Your task to perform on an android device: open wifi settings Image 0: 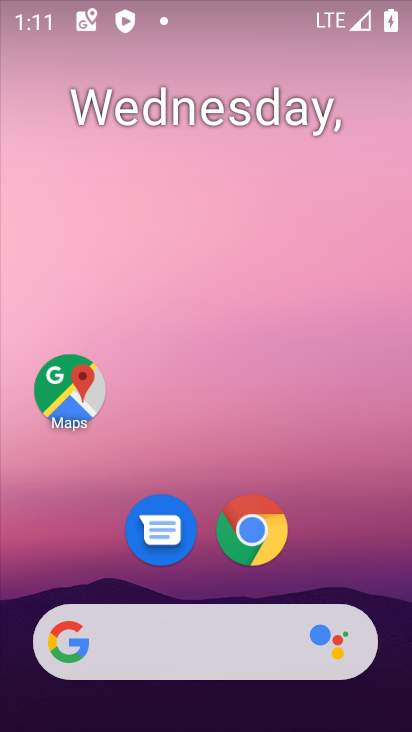
Step 0: drag from (360, 543) to (371, 162)
Your task to perform on an android device: open wifi settings Image 1: 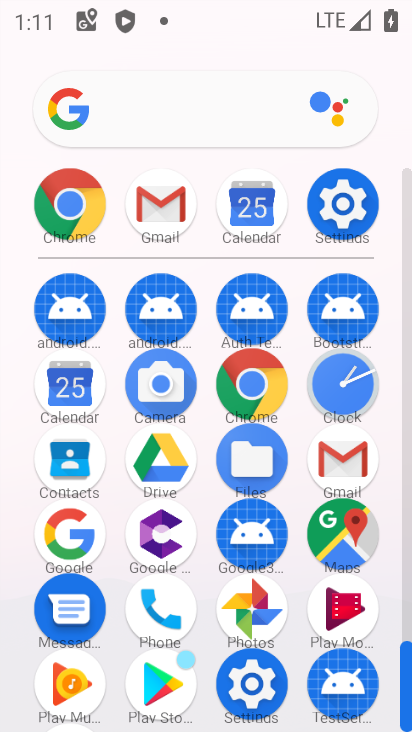
Step 1: click (250, 687)
Your task to perform on an android device: open wifi settings Image 2: 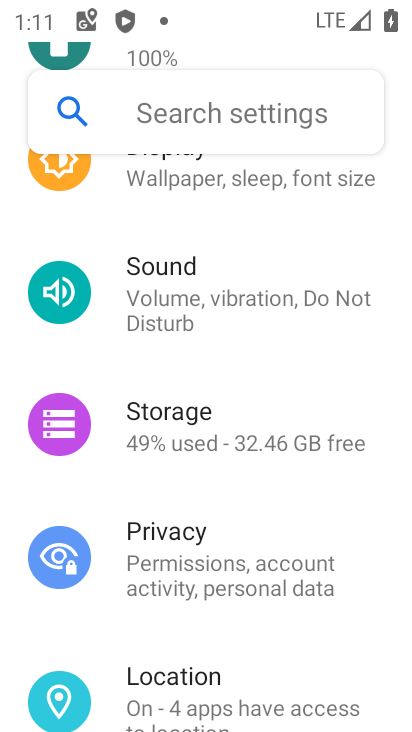
Step 2: drag from (223, 205) to (223, 603)
Your task to perform on an android device: open wifi settings Image 3: 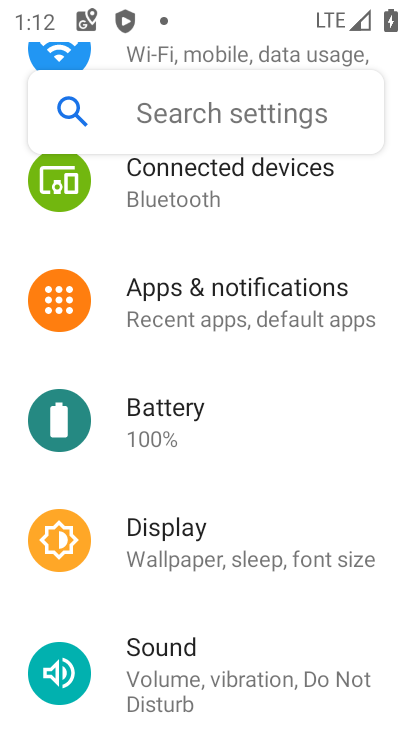
Step 3: drag from (249, 236) to (260, 515)
Your task to perform on an android device: open wifi settings Image 4: 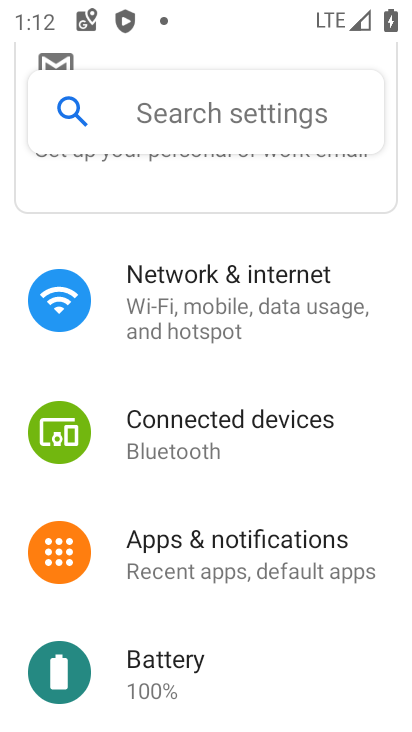
Step 4: click (199, 311)
Your task to perform on an android device: open wifi settings Image 5: 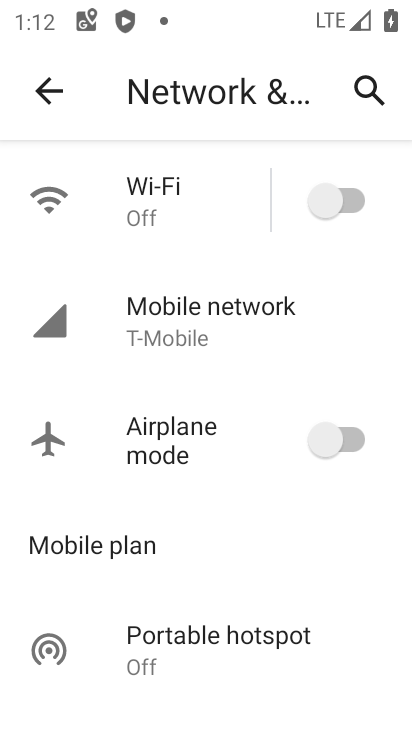
Step 5: click (166, 210)
Your task to perform on an android device: open wifi settings Image 6: 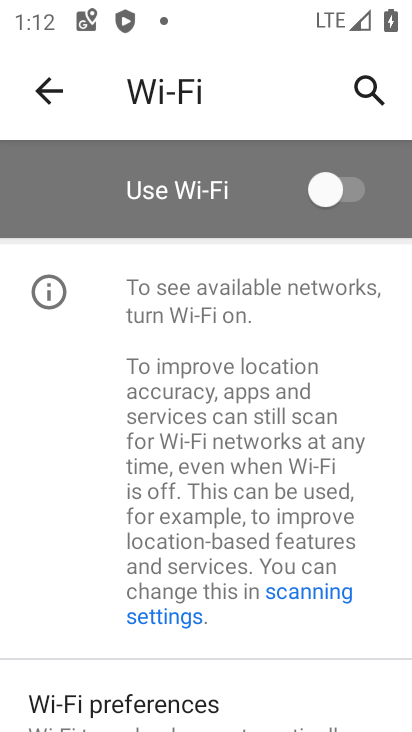
Step 6: task complete